Your task to perform on an android device: turn off notifications settings in the gmail app Image 0: 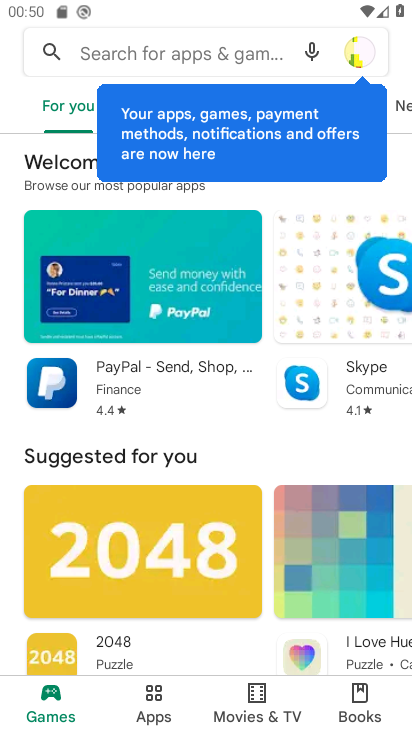
Step 0: press home button
Your task to perform on an android device: turn off notifications settings in the gmail app Image 1: 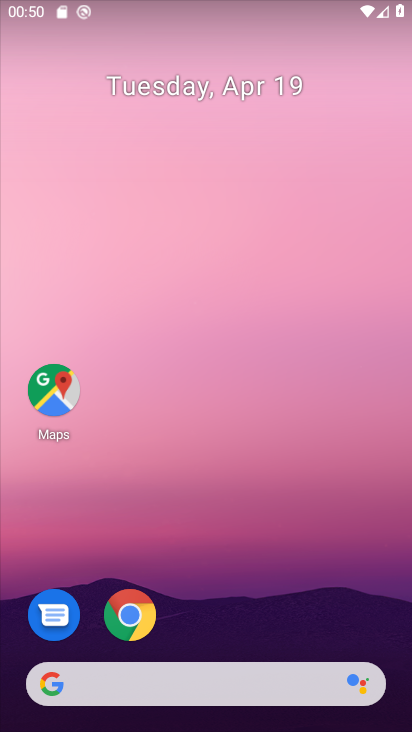
Step 1: drag from (301, 566) to (312, 120)
Your task to perform on an android device: turn off notifications settings in the gmail app Image 2: 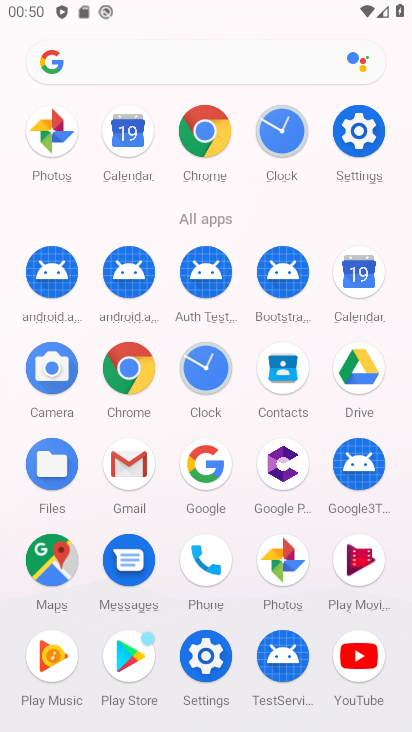
Step 2: click (141, 479)
Your task to perform on an android device: turn off notifications settings in the gmail app Image 3: 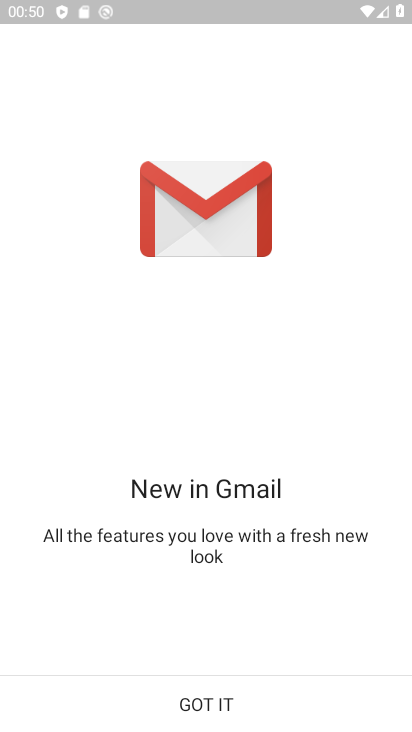
Step 3: click (200, 714)
Your task to perform on an android device: turn off notifications settings in the gmail app Image 4: 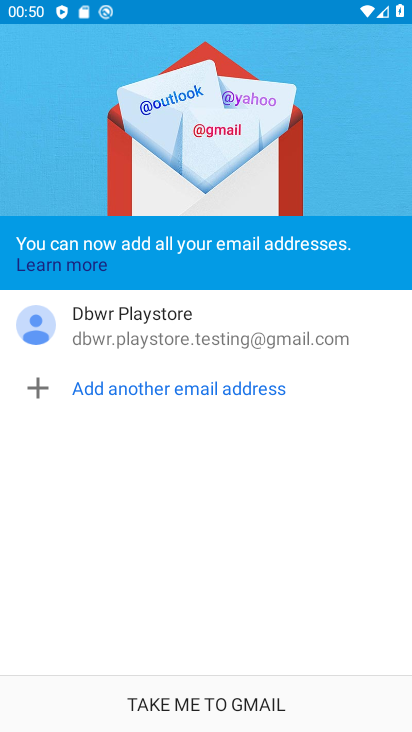
Step 4: click (192, 714)
Your task to perform on an android device: turn off notifications settings in the gmail app Image 5: 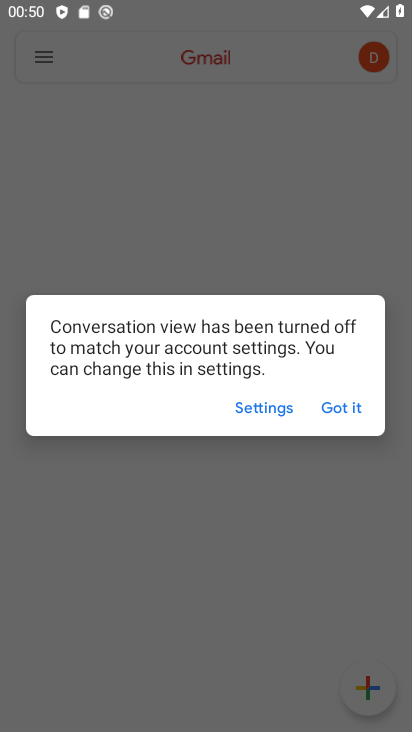
Step 5: click (347, 408)
Your task to perform on an android device: turn off notifications settings in the gmail app Image 6: 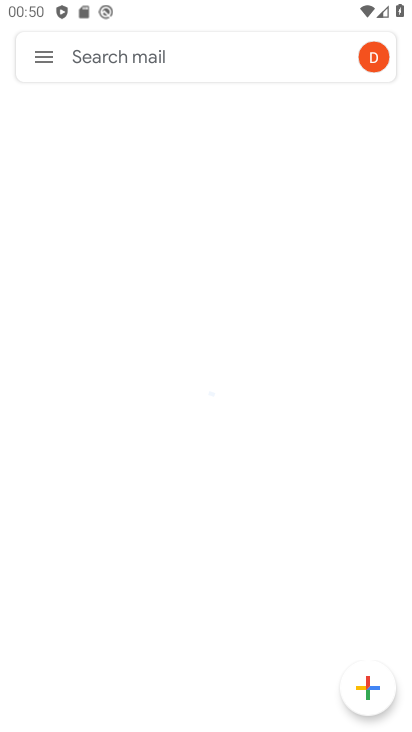
Step 6: click (54, 56)
Your task to perform on an android device: turn off notifications settings in the gmail app Image 7: 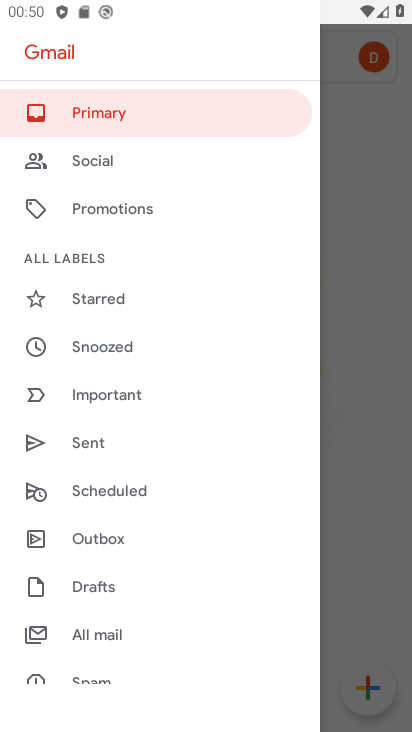
Step 7: drag from (132, 642) to (153, 311)
Your task to perform on an android device: turn off notifications settings in the gmail app Image 8: 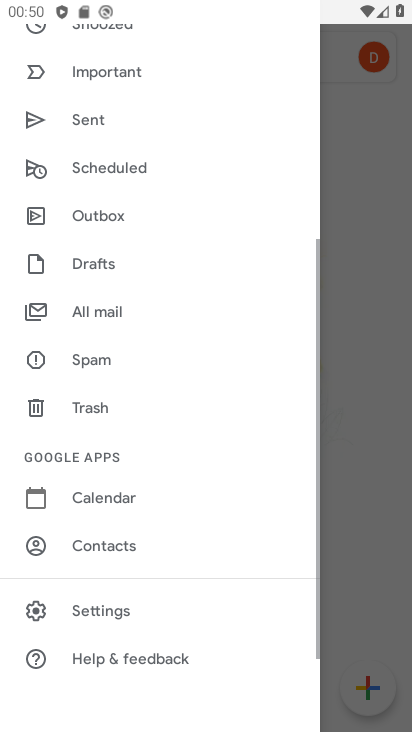
Step 8: click (126, 616)
Your task to perform on an android device: turn off notifications settings in the gmail app Image 9: 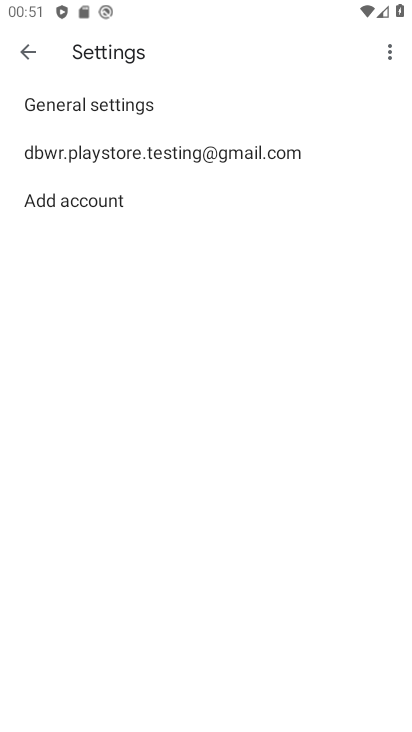
Step 9: click (149, 147)
Your task to perform on an android device: turn off notifications settings in the gmail app Image 10: 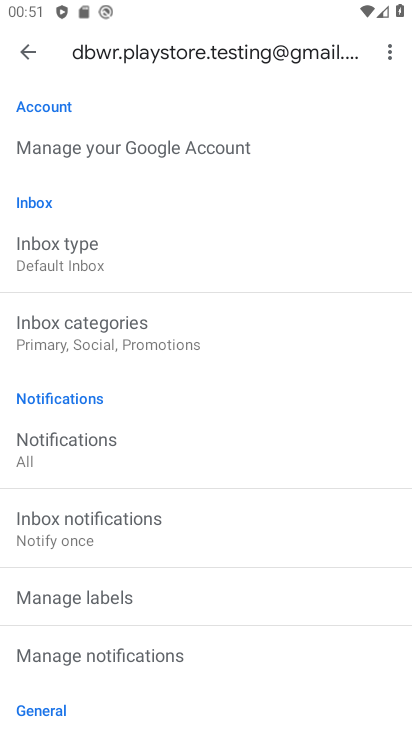
Step 10: click (89, 445)
Your task to perform on an android device: turn off notifications settings in the gmail app Image 11: 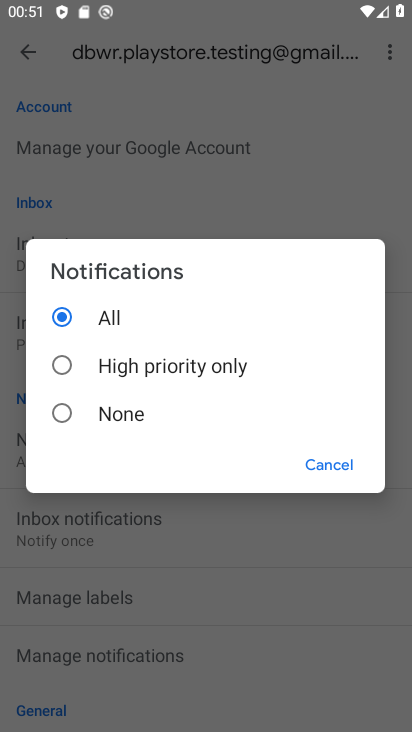
Step 11: click (137, 408)
Your task to perform on an android device: turn off notifications settings in the gmail app Image 12: 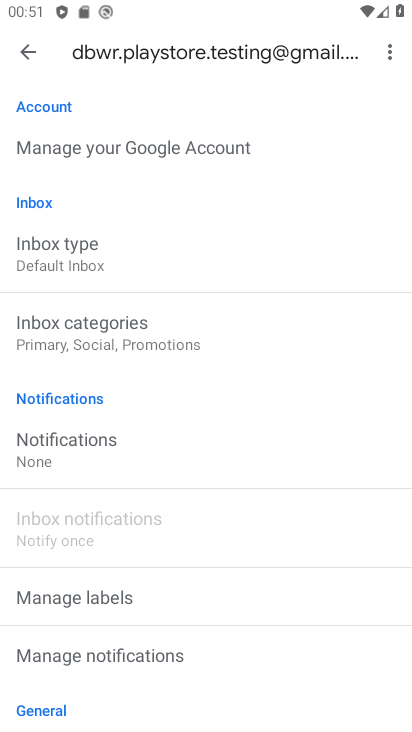
Step 12: task complete